Your task to perform on an android device: turn on airplane mode Image 0: 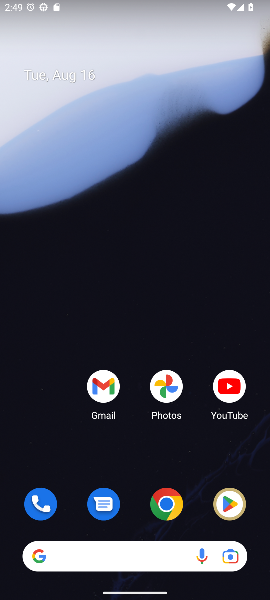
Step 0: drag from (133, 526) to (133, 136)
Your task to perform on an android device: turn on airplane mode Image 1: 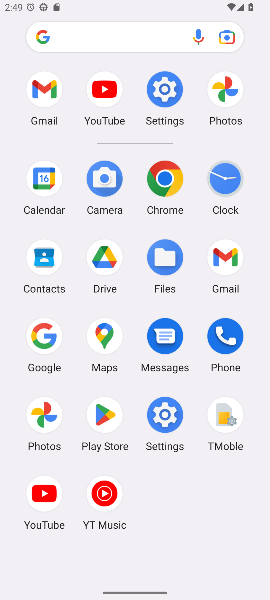
Step 1: click (165, 80)
Your task to perform on an android device: turn on airplane mode Image 2: 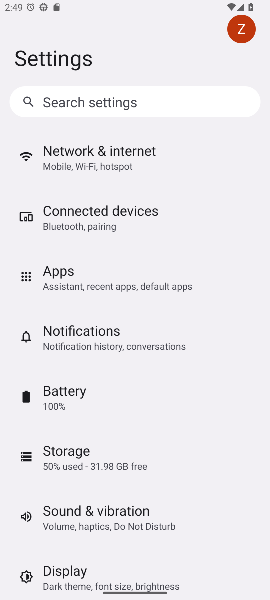
Step 2: click (109, 146)
Your task to perform on an android device: turn on airplane mode Image 3: 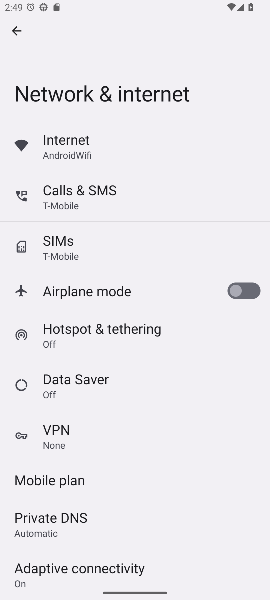
Step 3: click (229, 290)
Your task to perform on an android device: turn on airplane mode Image 4: 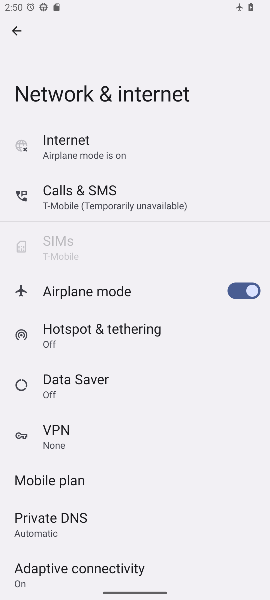
Step 4: task complete